Your task to perform on an android device: star an email in the gmail app Image 0: 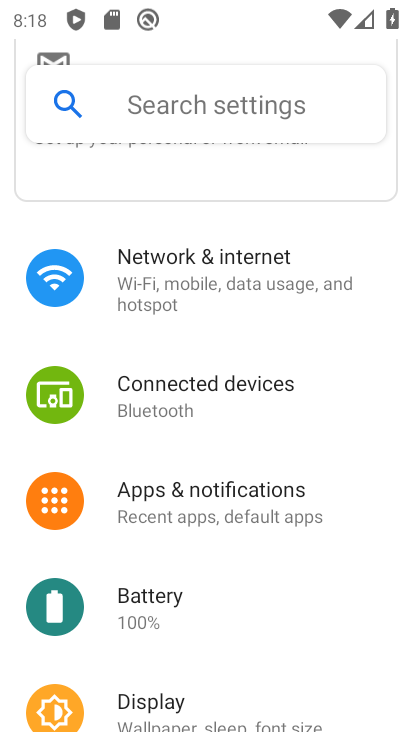
Step 0: press home button
Your task to perform on an android device: star an email in the gmail app Image 1: 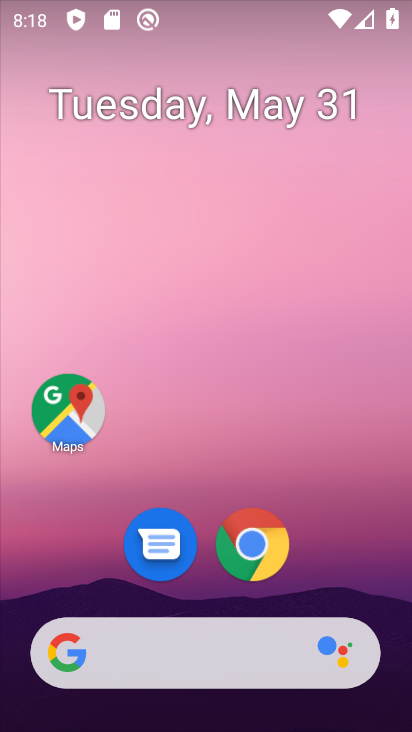
Step 1: drag from (203, 627) to (178, 155)
Your task to perform on an android device: star an email in the gmail app Image 2: 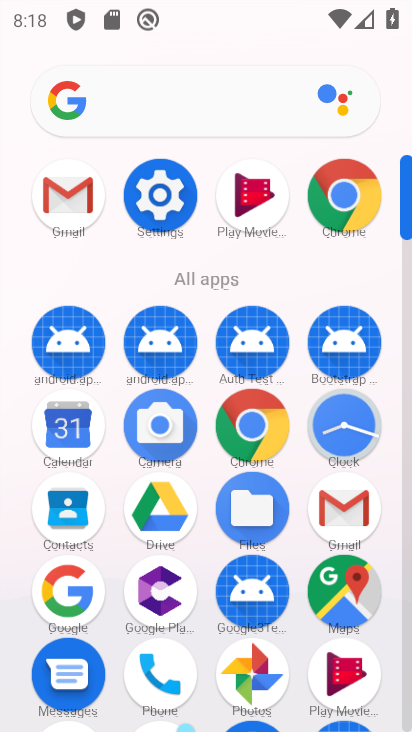
Step 2: click (56, 186)
Your task to perform on an android device: star an email in the gmail app Image 3: 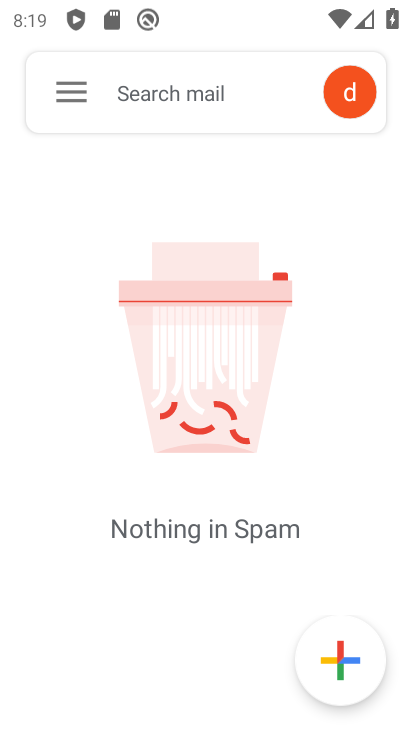
Step 3: click (59, 102)
Your task to perform on an android device: star an email in the gmail app Image 4: 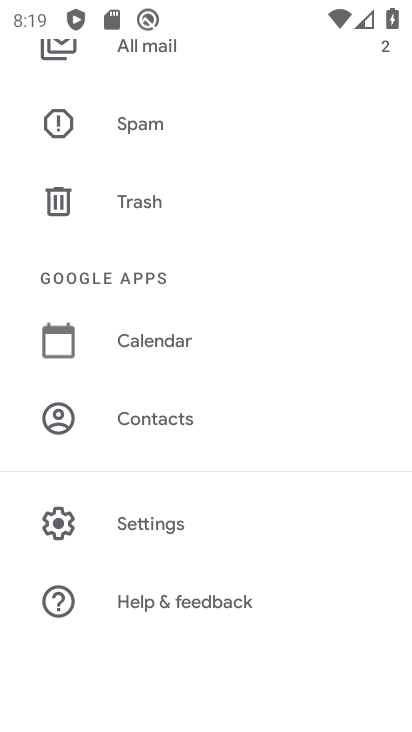
Step 4: click (127, 49)
Your task to perform on an android device: star an email in the gmail app Image 5: 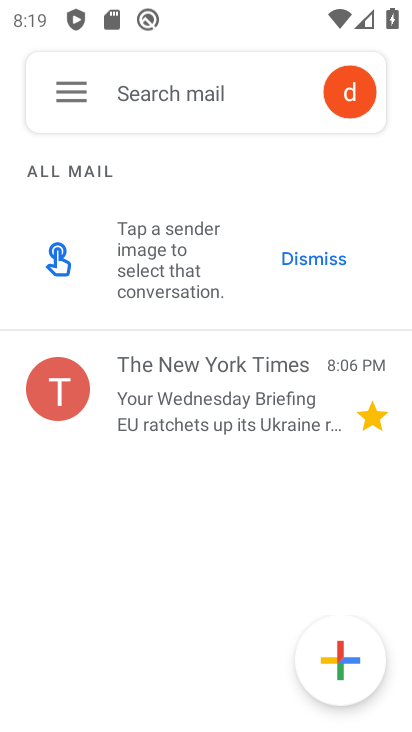
Step 5: task complete